Your task to perform on an android device: Is it going to rain this weekend? Image 0: 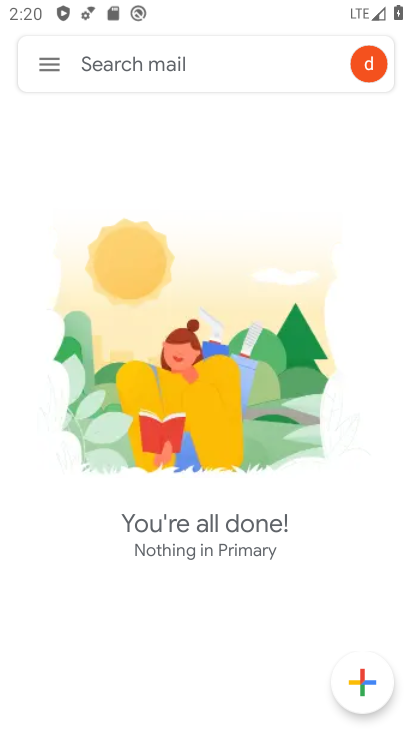
Step 0: press home button
Your task to perform on an android device: Is it going to rain this weekend? Image 1: 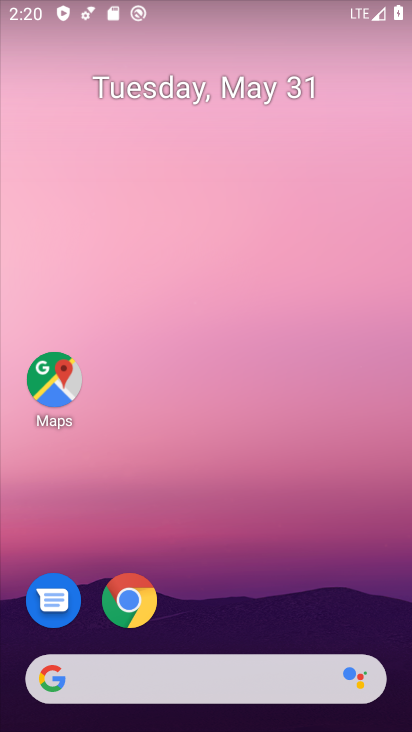
Step 1: drag from (1, 251) to (400, 268)
Your task to perform on an android device: Is it going to rain this weekend? Image 2: 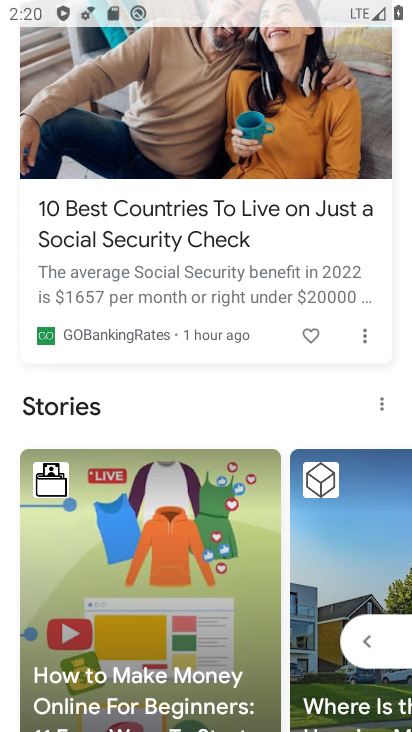
Step 2: drag from (200, 92) to (229, 712)
Your task to perform on an android device: Is it going to rain this weekend? Image 3: 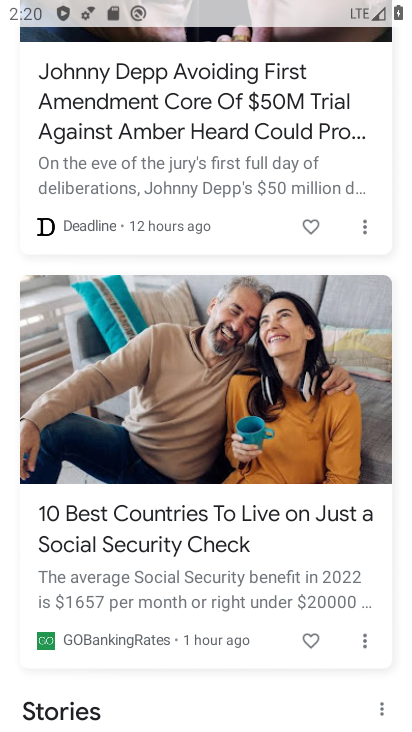
Step 3: drag from (216, 216) to (173, 728)
Your task to perform on an android device: Is it going to rain this weekend? Image 4: 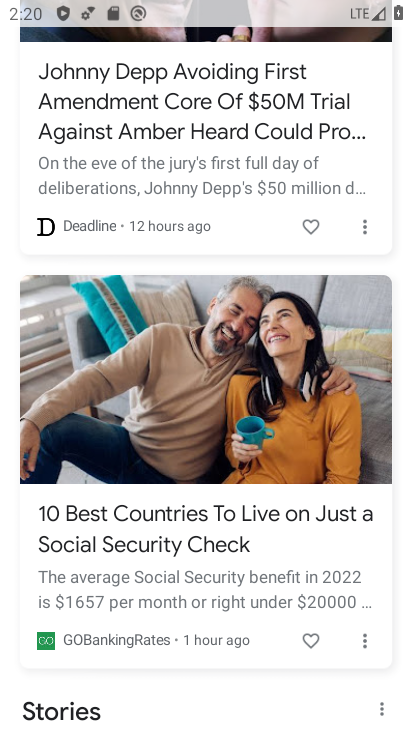
Step 4: drag from (208, 164) to (222, 715)
Your task to perform on an android device: Is it going to rain this weekend? Image 5: 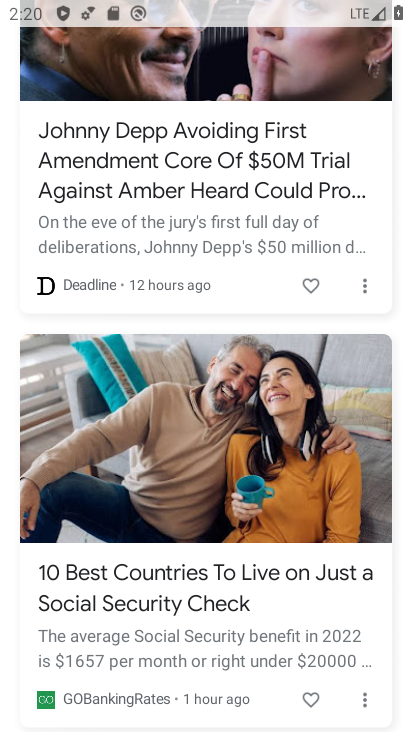
Step 5: drag from (210, 110) to (202, 729)
Your task to perform on an android device: Is it going to rain this weekend? Image 6: 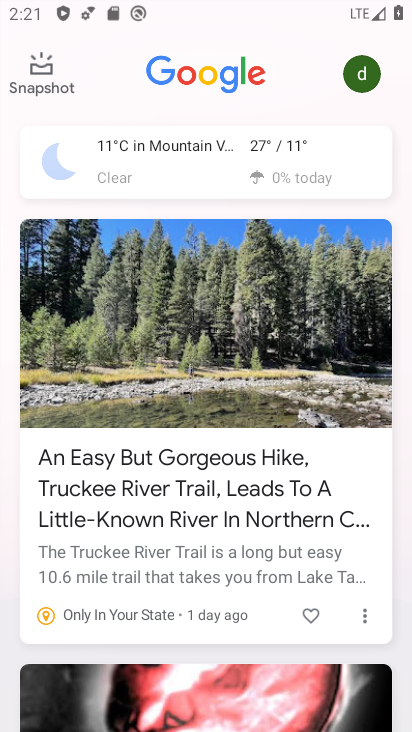
Step 6: click (265, 143)
Your task to perform on an android device: Is it going to rain this weekend? Image 7: 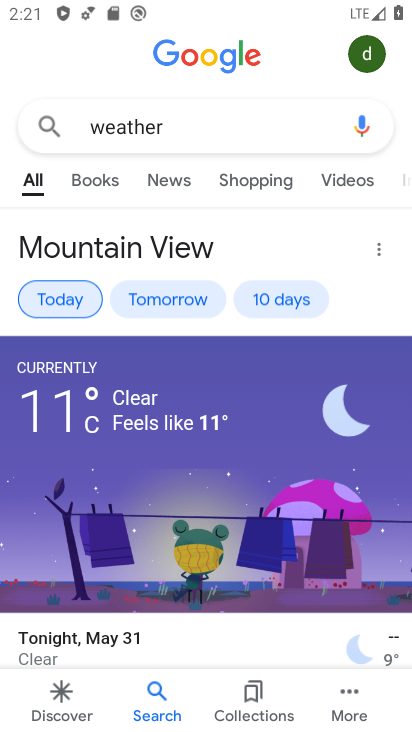
Step 7: click (275, 298)
Your task to perform on an android device: Is it going to rain this weekend? Image 8: 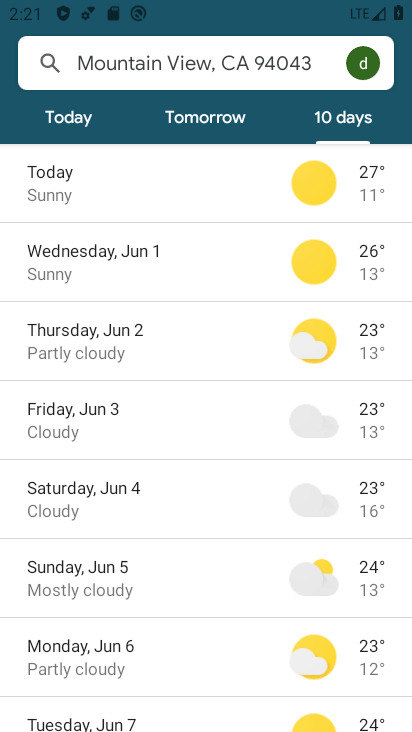
Step 8: task complete